Your task to perform on an android device: Open Youtube and go to "Your channel" Image 0: 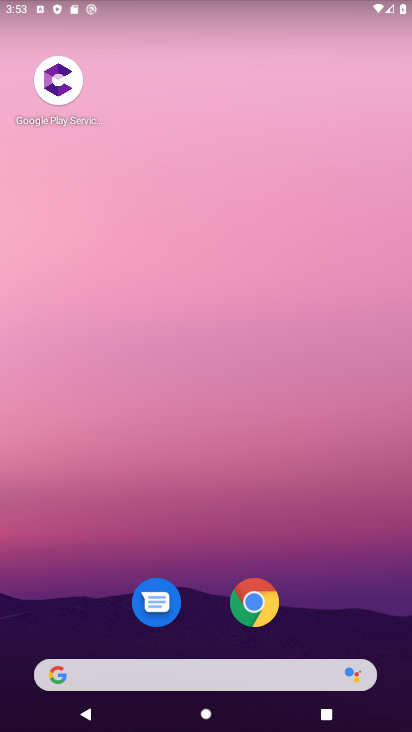
Step 0: drag from (208, 421) to (196, 132)
Your task to perform on an android device: Open Youtube and go to "Your channel" Image 1: 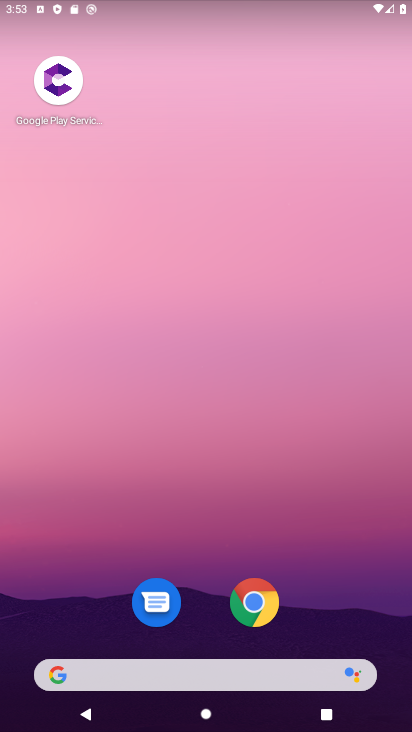
Step 1: drag from (198, 296) to (208, 113)
Your task to perform on an android device: Open Youtube and go to "Your channel" Image 2: 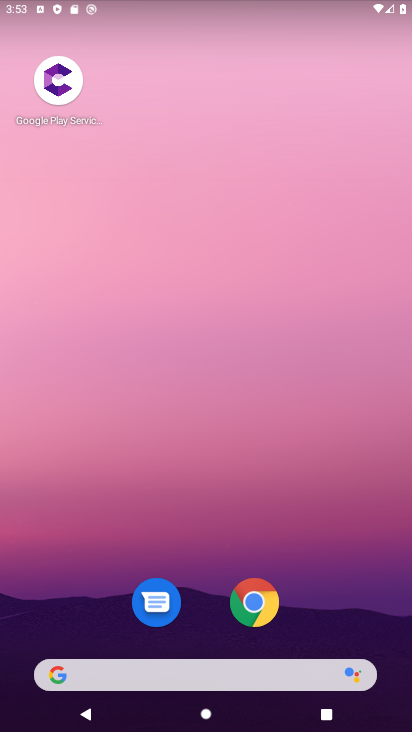
Step 2: drag from (195, 548) to (198, 87)
Your task to perform on an android device: Open Youtube and go to "Your channel" Image 3: 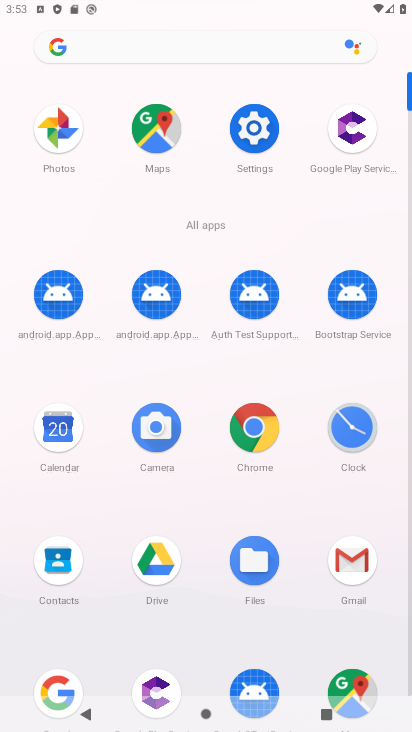
Step 3: drag from (288, 535) to (283, 375)
Your task to perform on an android device: Open Youtube and go to "Your channel" Image 4: 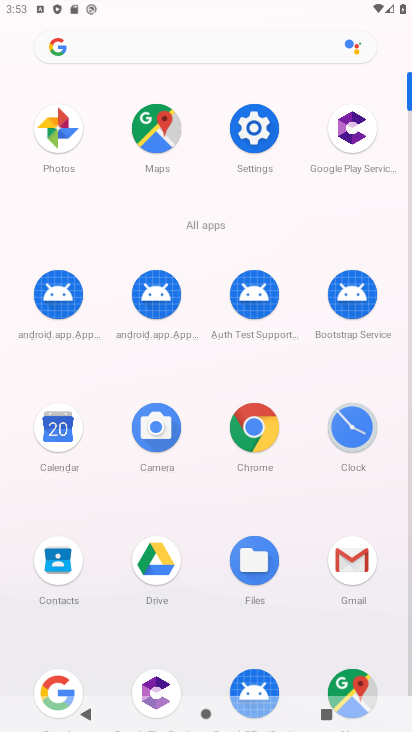
Step 4: drag from (188, 558) to (170, 154)
Your task to perform on an android device: Open Youtube and go to "Your channel" Image 5: 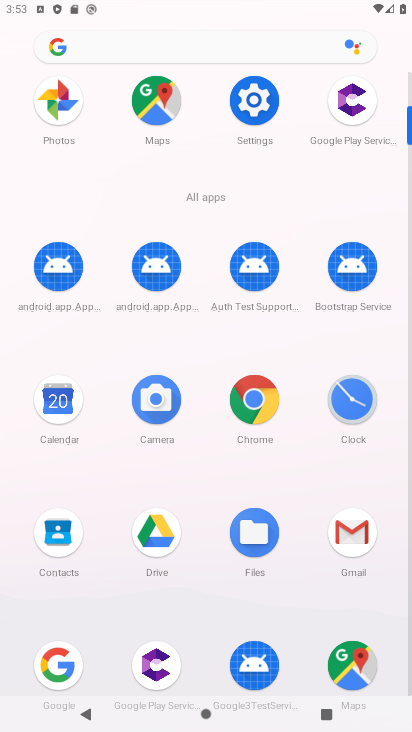
Step 5: drag from (207, 374) to (207, 325)
Your task to perform on an android device: Open Youtube and go to "Your channel" Image 6: 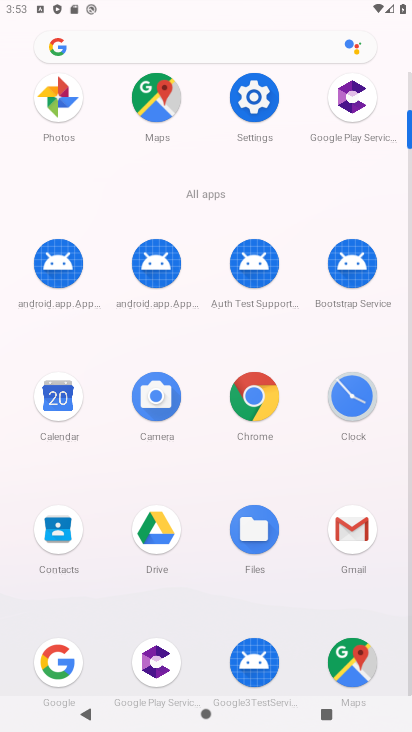
Step 6: drag from (214, 531) to (229, 358)
Your task to perform on an android device: Open Youtube and go to "Your channel" Image 7: 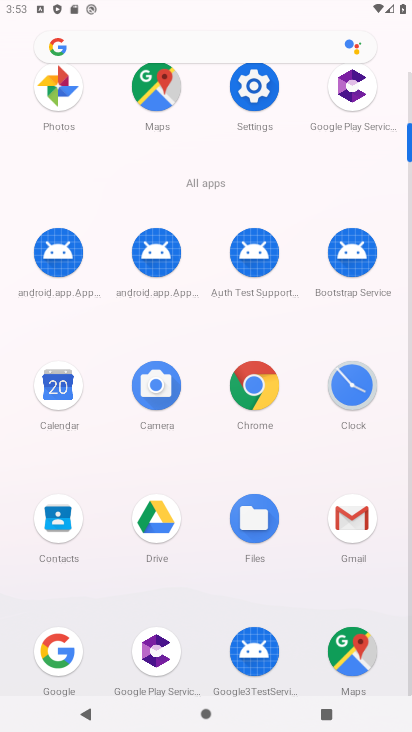
Step 7: drag from (313, 462) to (302, 241)
Your task to perform on an android device: Open Youtube and go to "Your channel" Image 8: 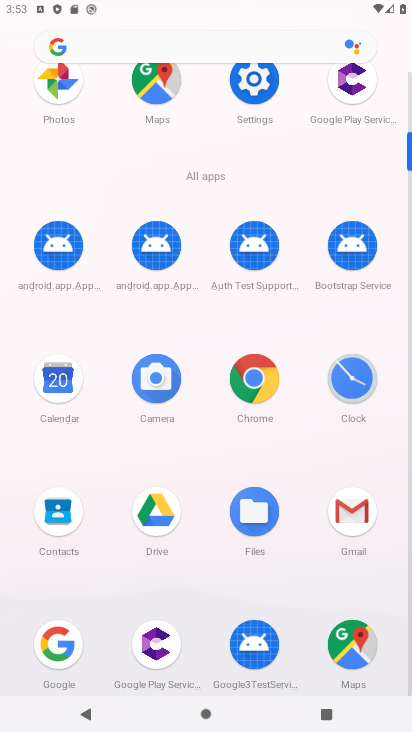
Step 8: click (185, 302)
Your task to perform on an android device: Open Youtube and go to "Your channel" Image 9: 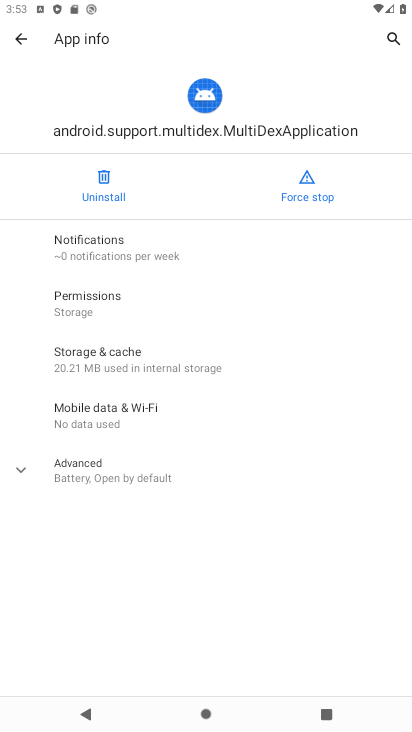
Step 9: click (21, 32)
Your task to perform on an android device: Open Youtube and go to "Your channel" Image 10: 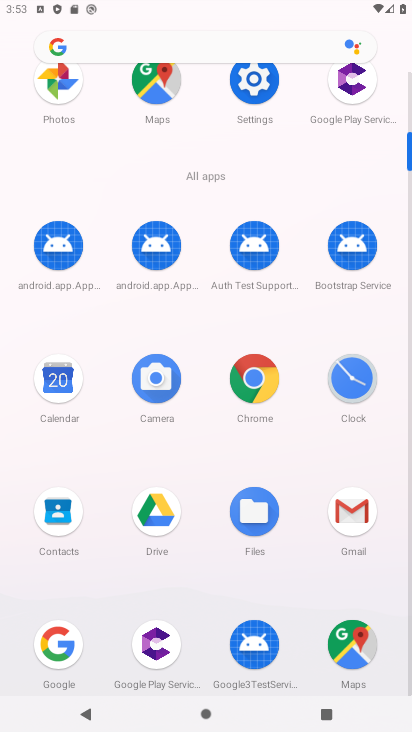
Step 10: drag from (205, 571) to (209, 280)
Your task to perform on an android device: Open Youtube and go to "Your channel" Image 11: 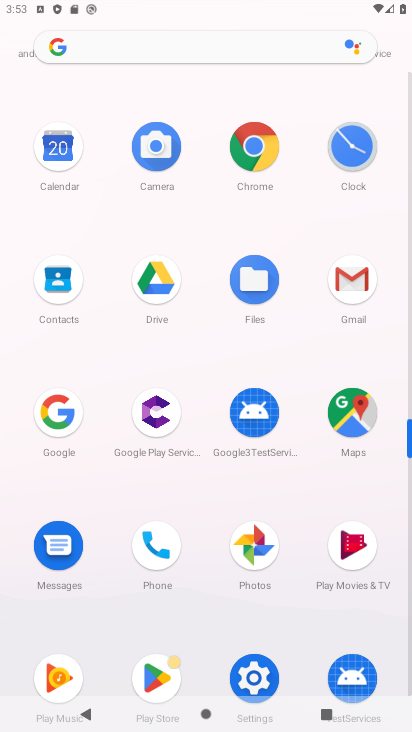
Step 11: drag from (274, 601) to (257, 340)
Your task to perform on an android device: Open Youtube and go to "Your channel" Image 12: 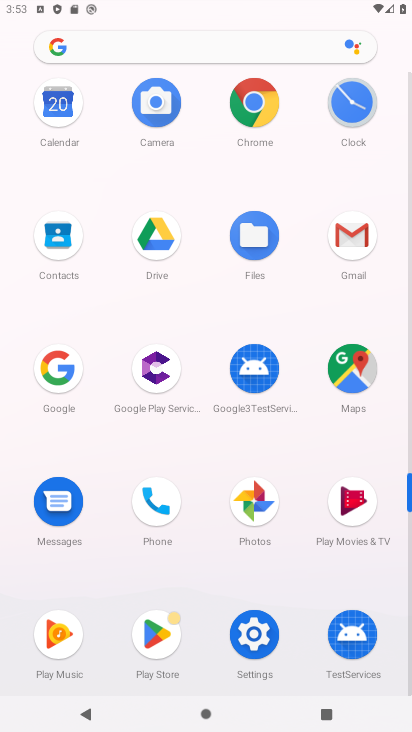
Step 12: drag from (193, 484) to (228, 299)
Your task to perform on an android device: Open Youtube and go to "Your channel" Image 13: 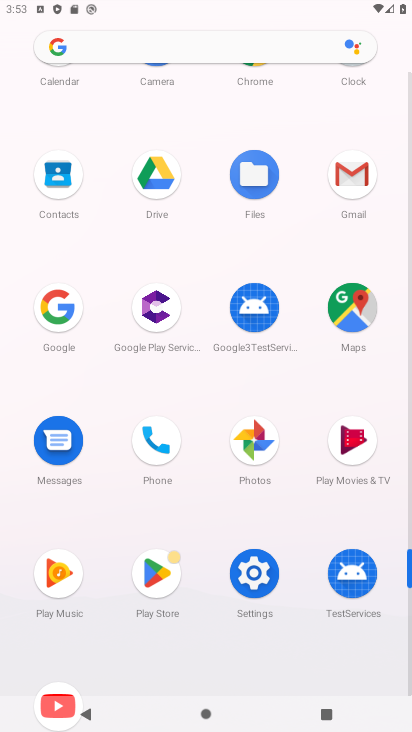
Step 13: drag from (101, 571) to (108, 392)
Your task to perform on an android device: Open Youtube and go to "Your channel" Image 14: 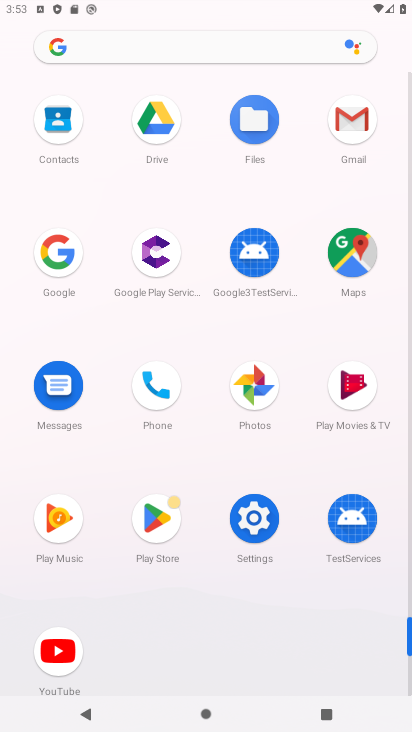
Step 14: click (55, 652)
Your task to perform on an android device: Open Youtube and go to "Your channel" Image 15: 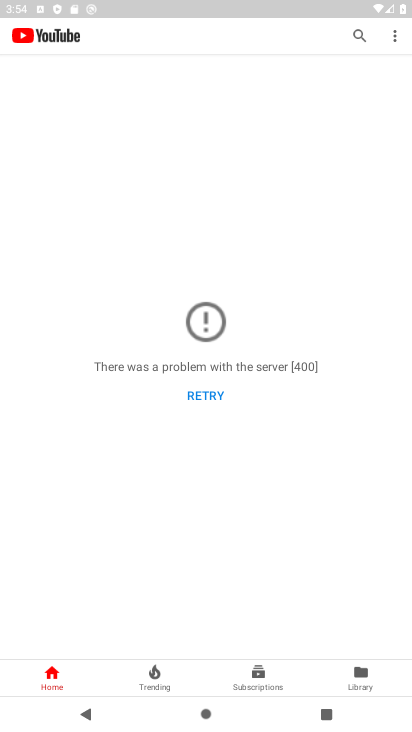
Step 15: click (354, 666)
Your task to perform on an android device: Open Youtube and go to "Your channel" Image 16: 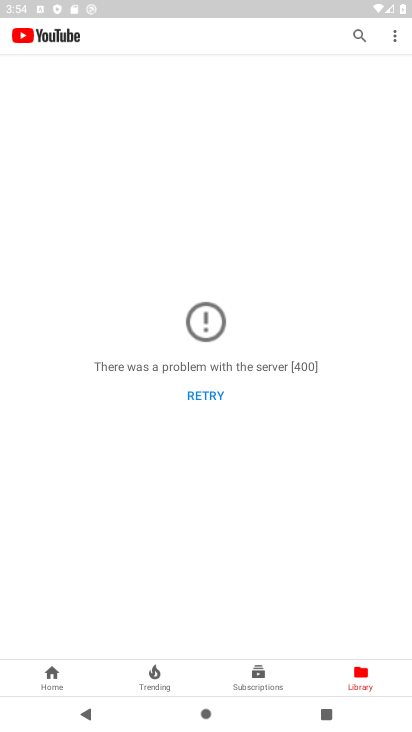
Step 16: task complete